Your task to perform on an android device: see creations saved in the google photos Image 0: 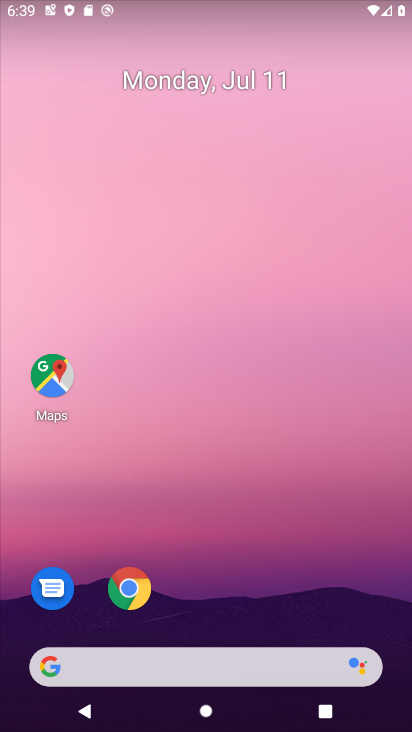
Step 0: drag from (319, 598) to (230, 25)
Your task to perform on an android device: see creations saved in the google photos Image 1: 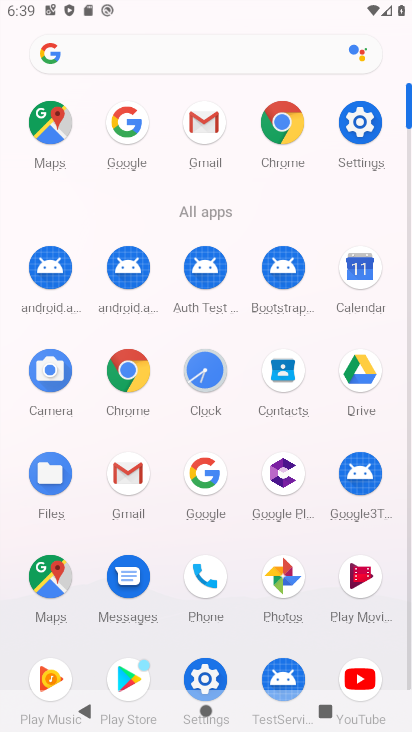
Step 1: click (278, 577)
Your task to perform on an android device: see creations saved in the google photos Image 2: 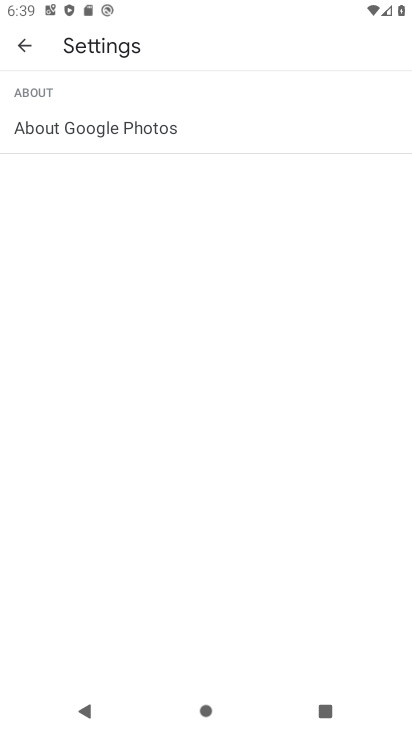
Step 2: press back button
Your task to perform on an android device: see creations saved in the google photos Image 3: 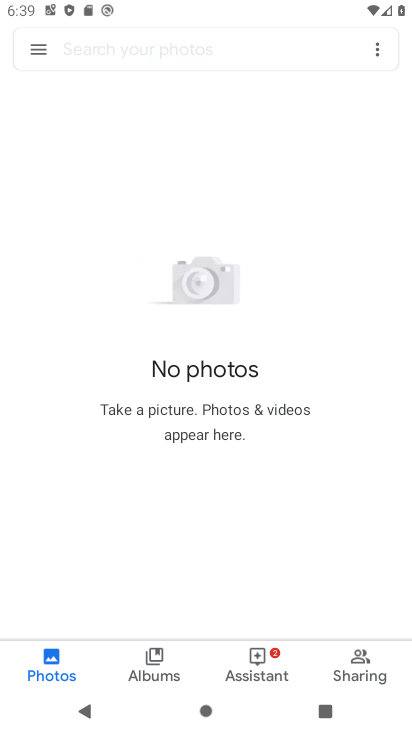
Step 3: click (156, 45)
Your task to perform on an android device: see creations saved in the google photos Image 4: 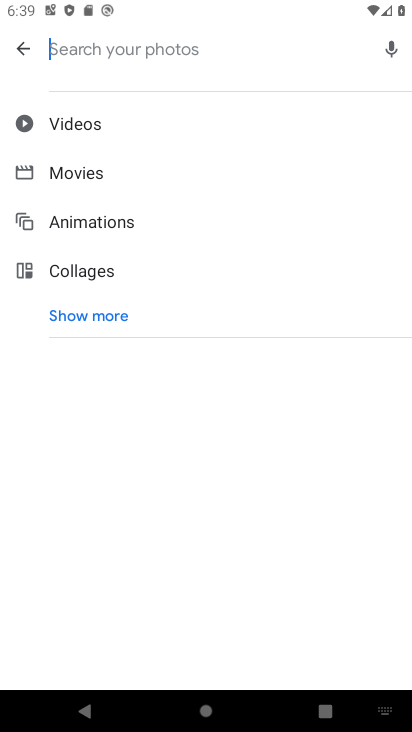
Step 4: click (106, 320)
Your task to perform on an android device: see creations saved in the google photos Image 5: 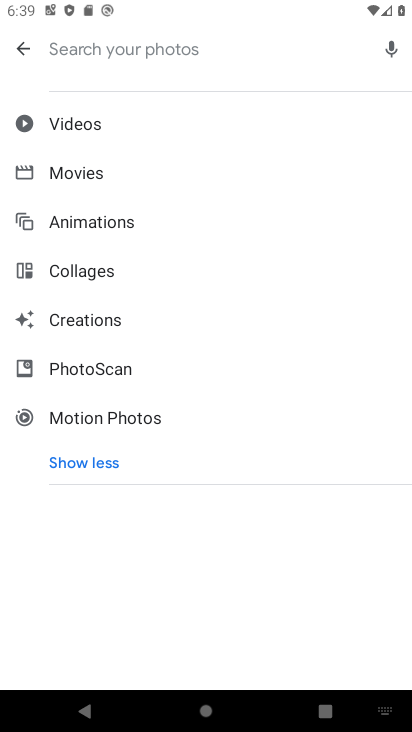
Step 5: click (105, 320)
Your task to perform on an android device: see creations saved in the google photos Image 6: 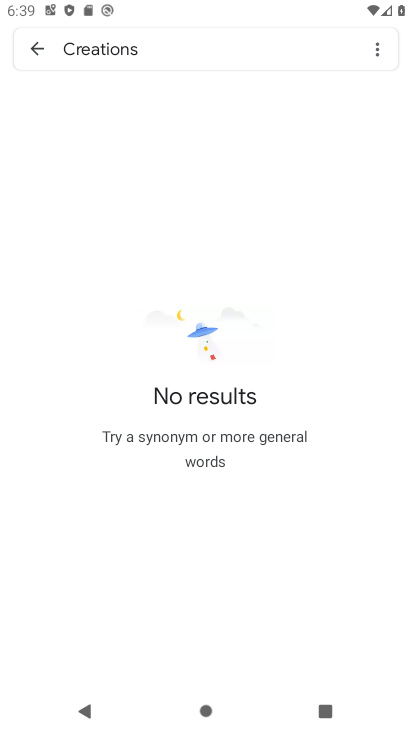
Step 6: task complete